Your task to perform on an android device: Open Google Maps Image 0: 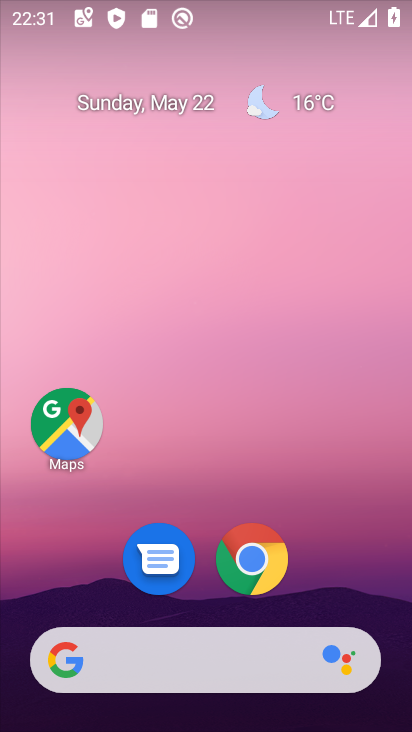
Step 0: drag from (235, 709) to (189, 95)
Your task to perform on an android device: Open Google Maps Image 1: 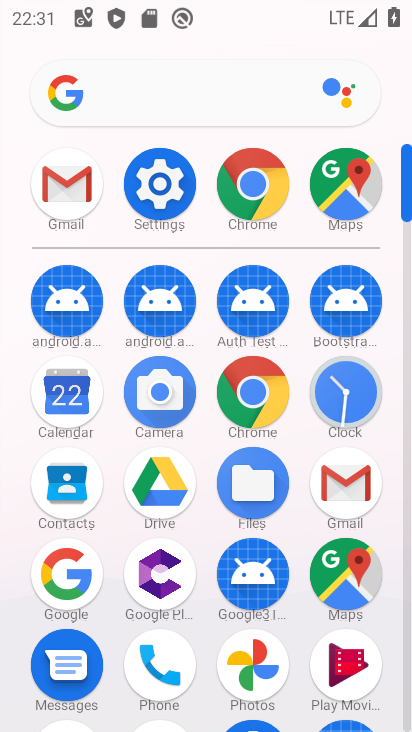
Step 1: click (341, 208)
Your task to perform on an android device: Open Google Maps Image 2: 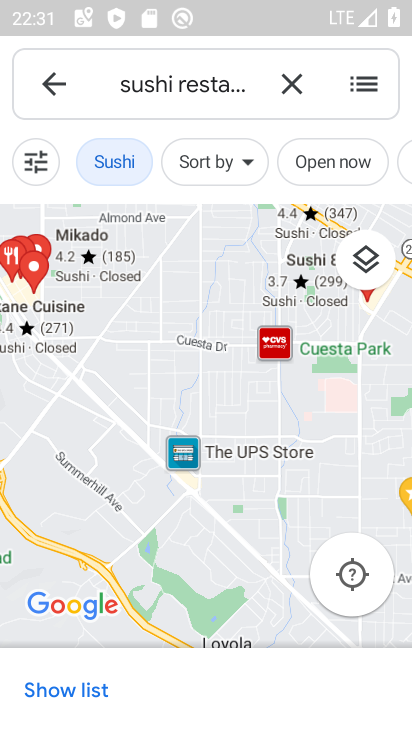
Step 2: click (47, 74)
Your task to perform on an android device: Open Google Maps Image 3: 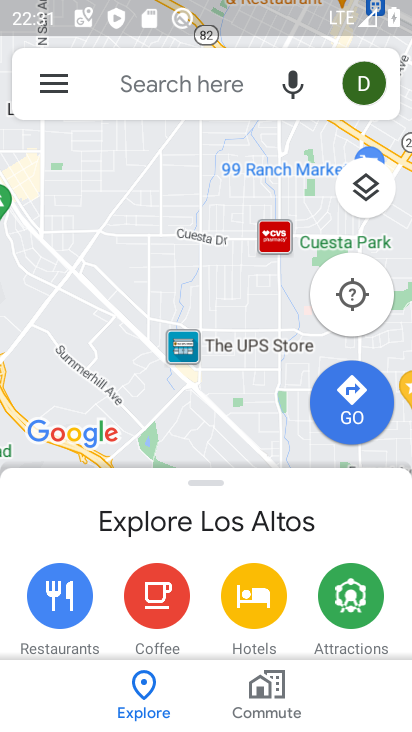
Step 3: click (365, 285)
Your task to perform on an android device: Open Google Maps Image 4: 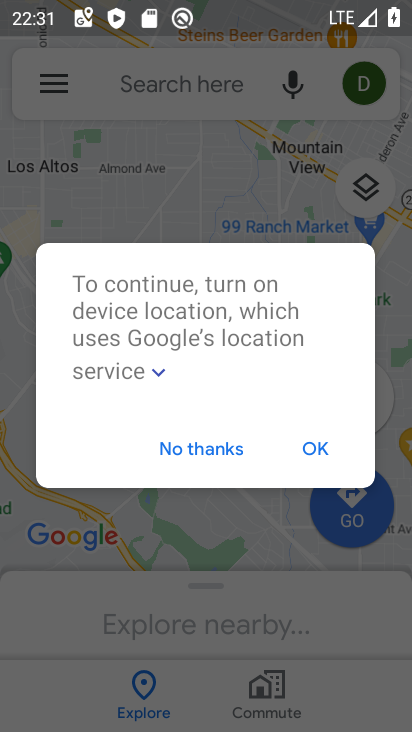
Step 4: click (194, 456)
Your task to perform on an android device: Open Google Maps Image 5: 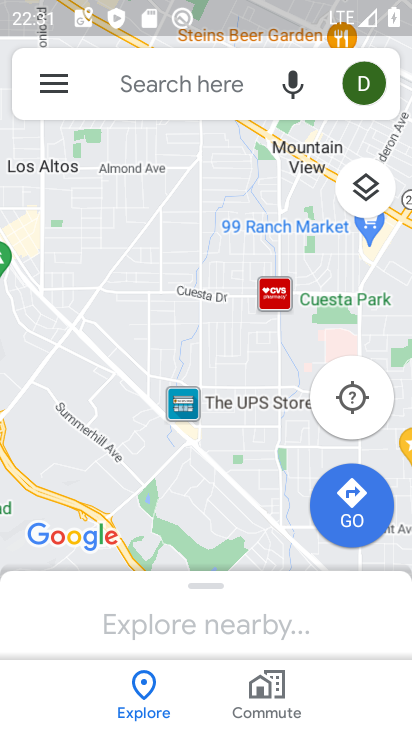
Step 5: task complete